Your task to perform on an android device: Turn off the flashlight Image 0: 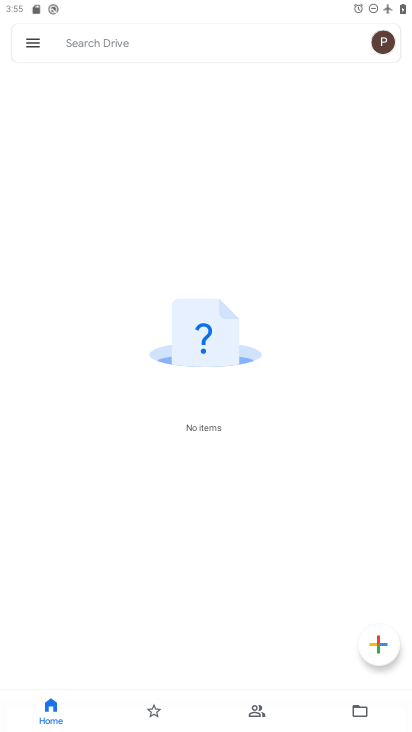
Step 0: press home button
Your task to perform on an android device: Turn off the flashlight Image 1: 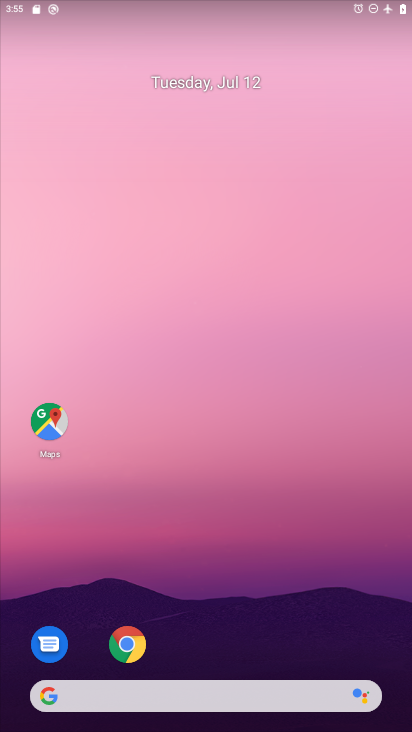
Step 1: drag from (288, 560) to (212, 81)
Your task to perform on an android device: Turn off the flashlight Image 2: 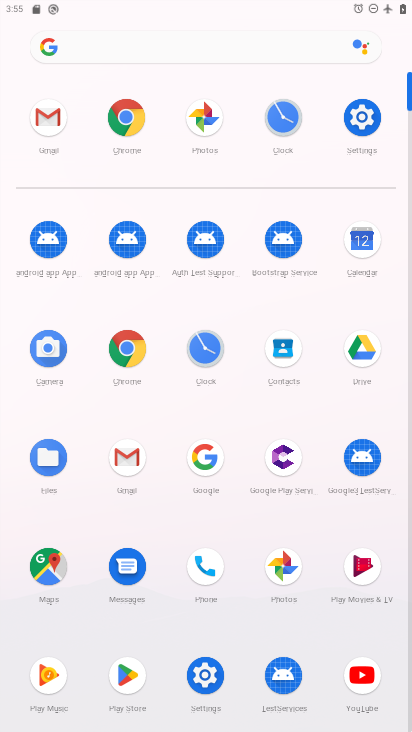
Step 2: click (360, 109)
Your task to perform on an android device: Turn off the flashlight Image 3: 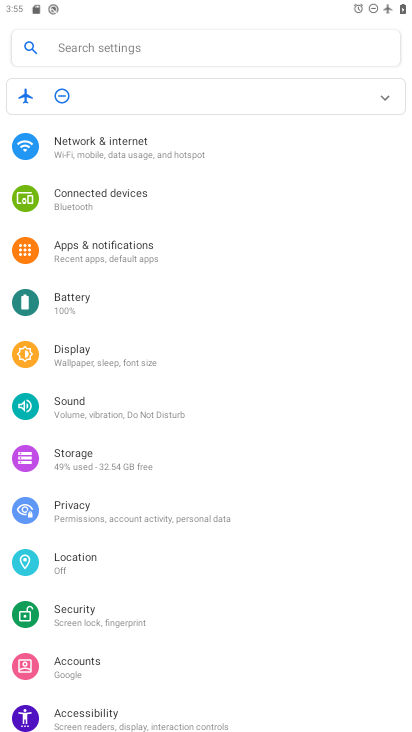
Step 3: click (127, 352)
Your task to perform on an android device: Turn off the flashlight Image 4: 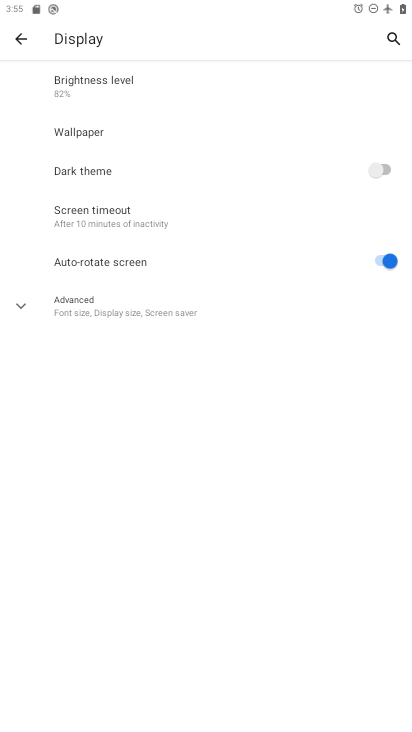
Step 4: task complete